Your task to perform on an android device: check out phone information Image 0: 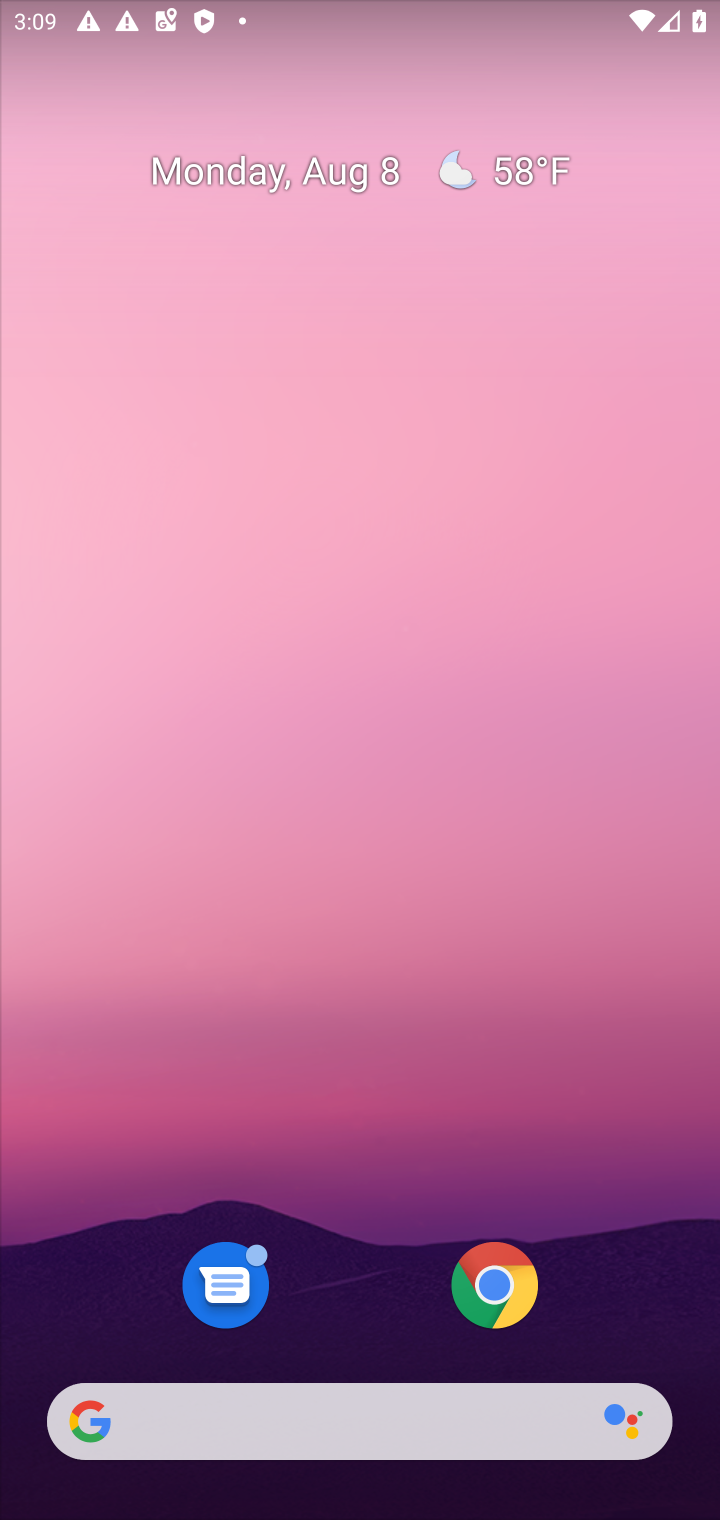
Step 0: drag from (470, 683) to (486, 188)
Your task to perform on an android device: check out phone information Image 1: 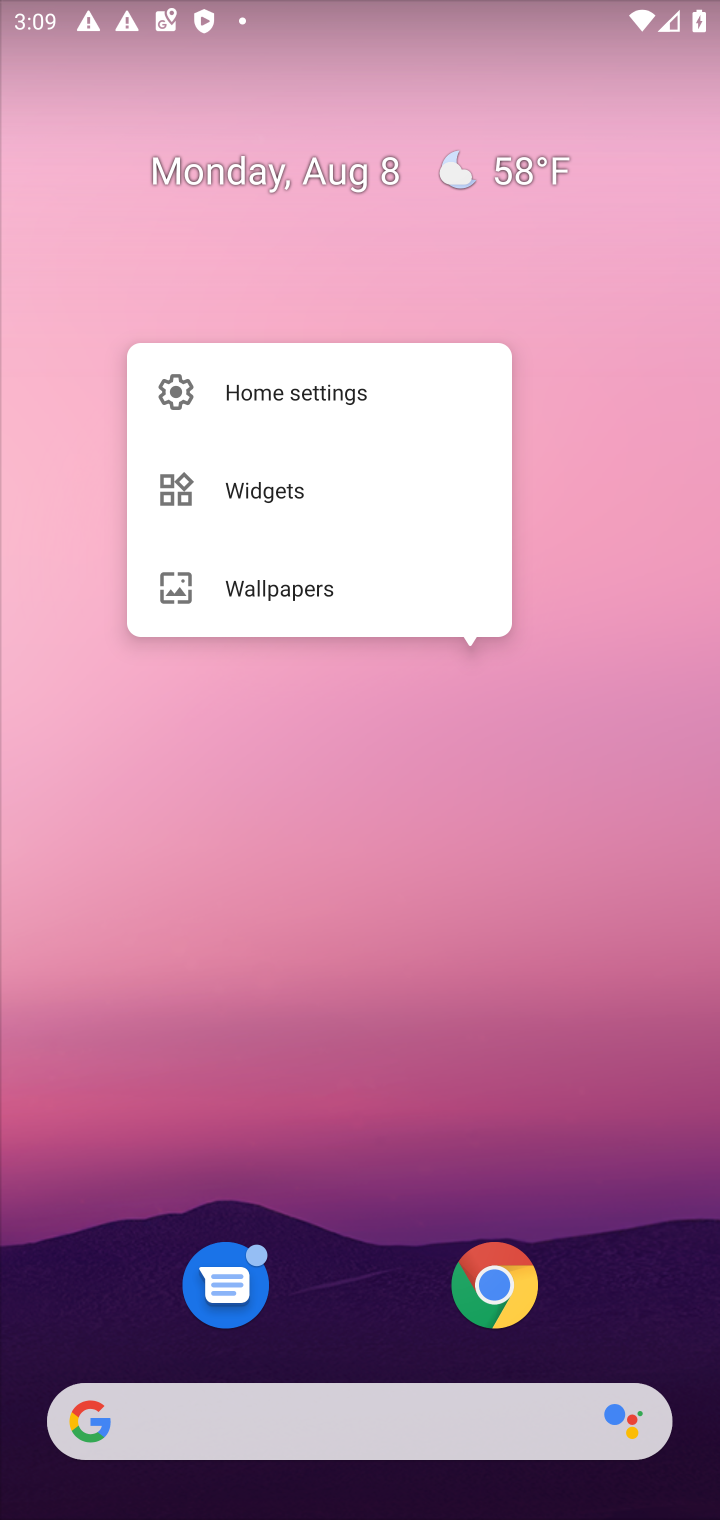
Step 1: click (317, 1200)
Your task to perform on an android device: check out phone information Image 2: 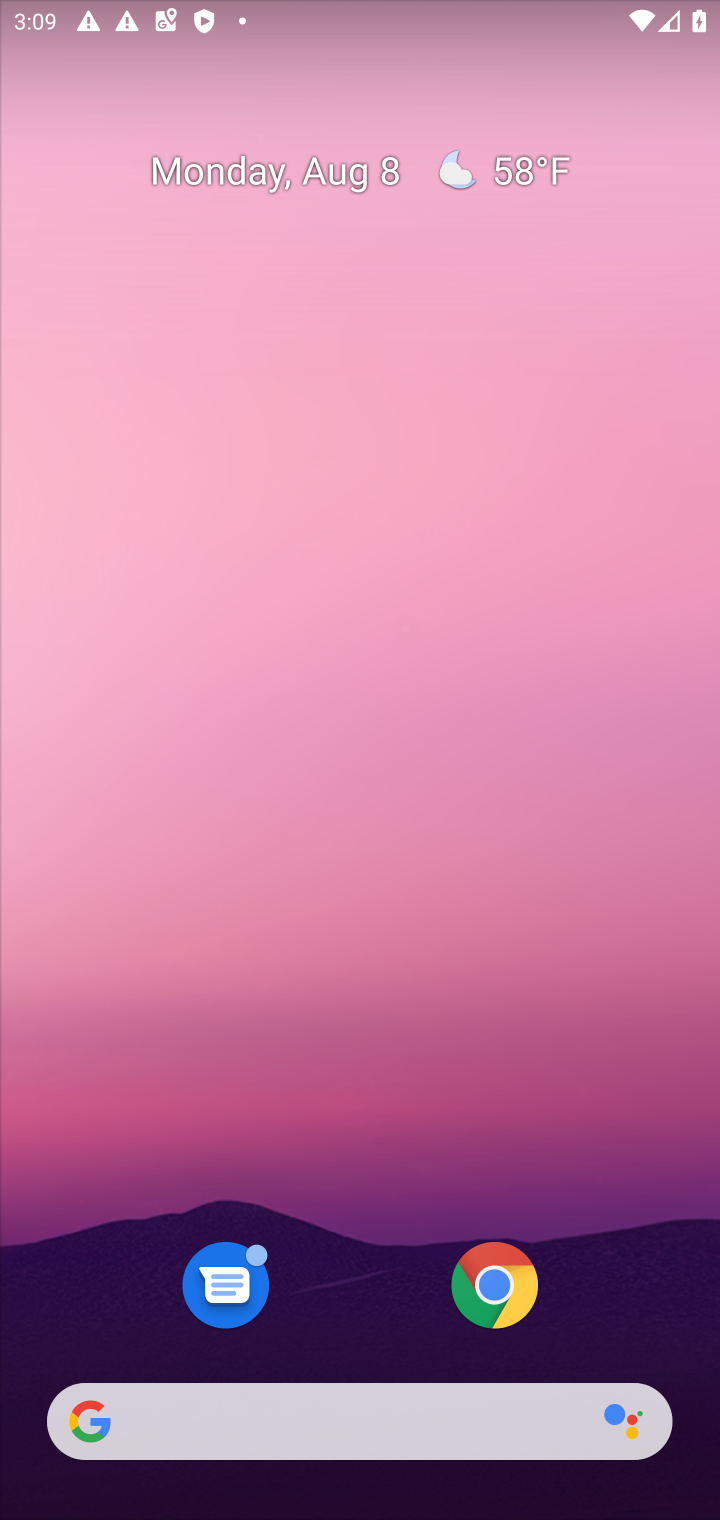
Step 2: drag from (454, 624) to (541, 52)
Your task to perform on an android device: check out phone information Image 3: 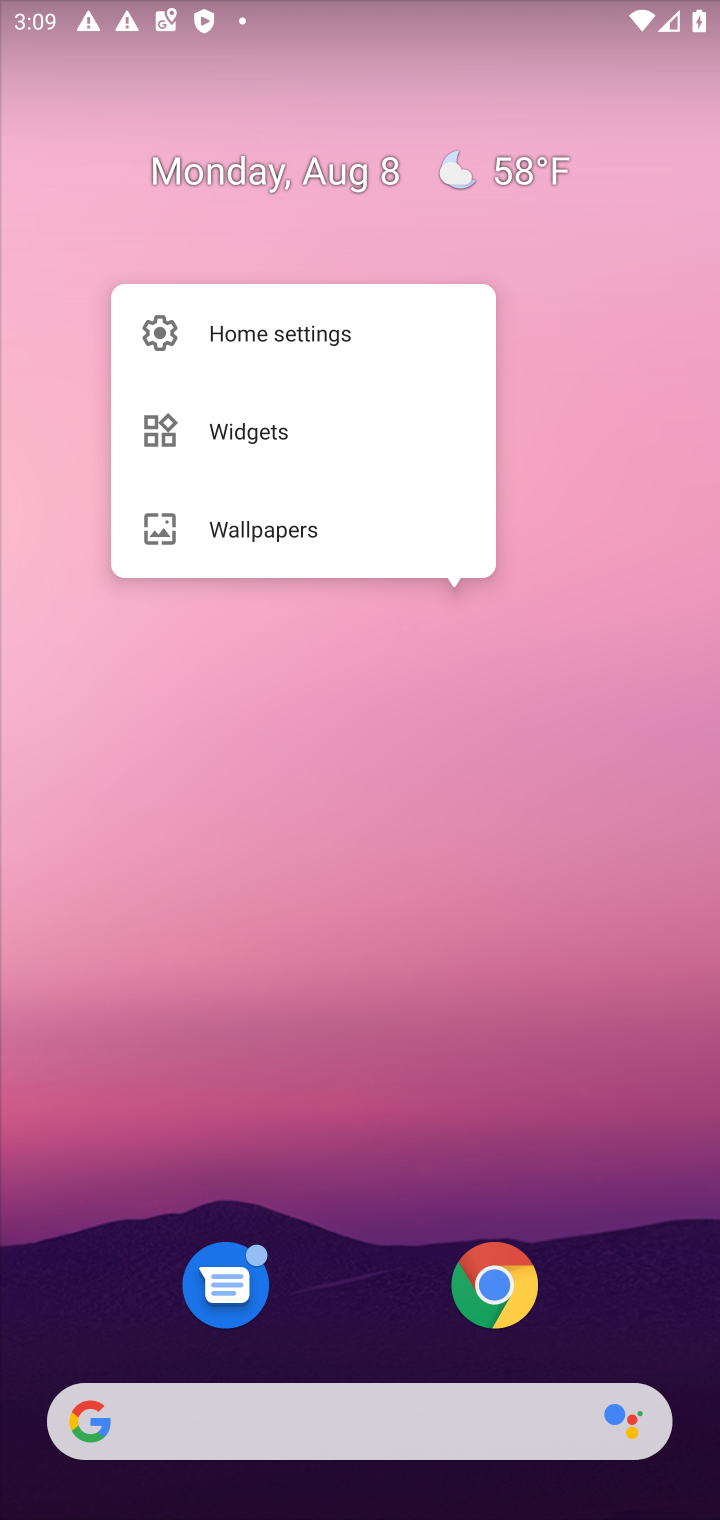
Step 3: click (427, 955)
Your task to perform on an android device: check out phone information Image 4: 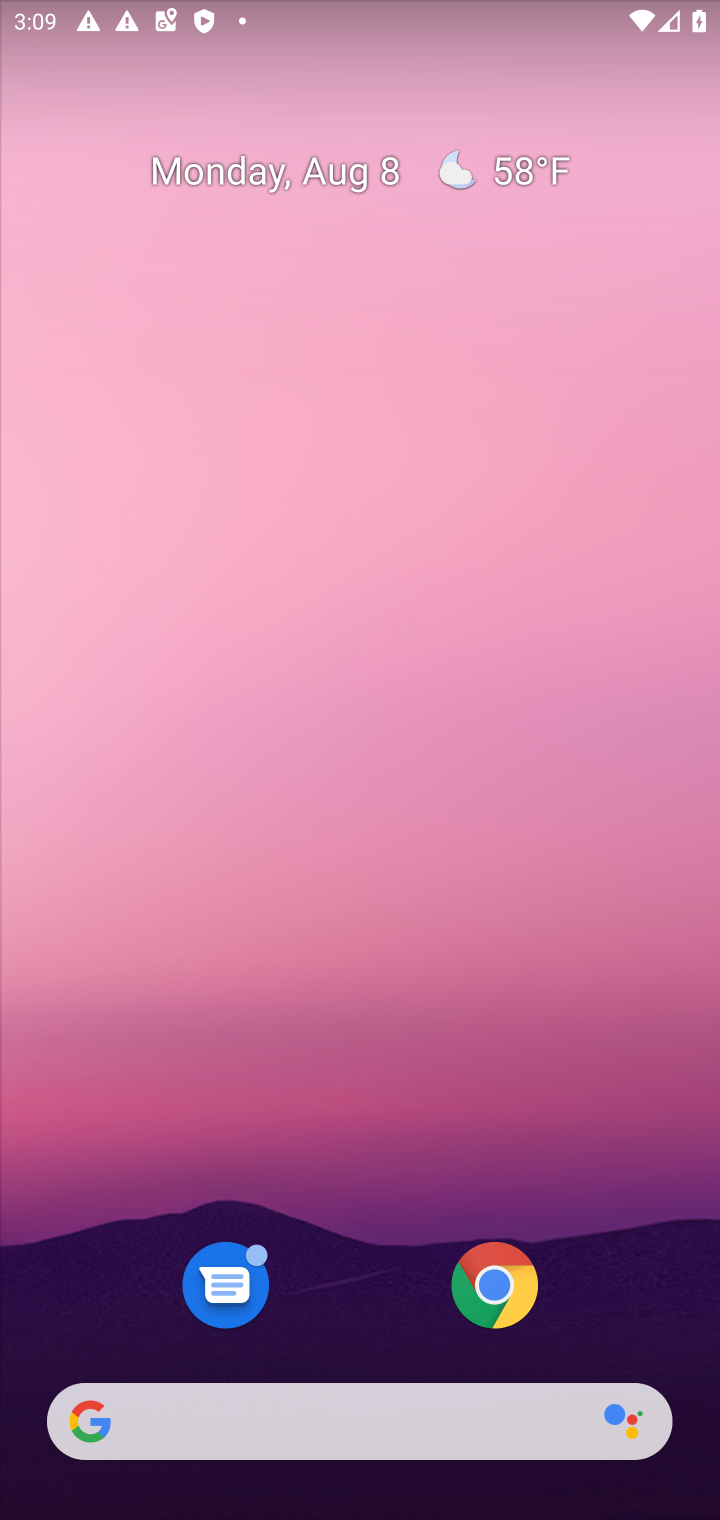
Step 4: drag from (351, 1256) to (560, 59)
Your task to perform on an android device: check out phone information Image 5: 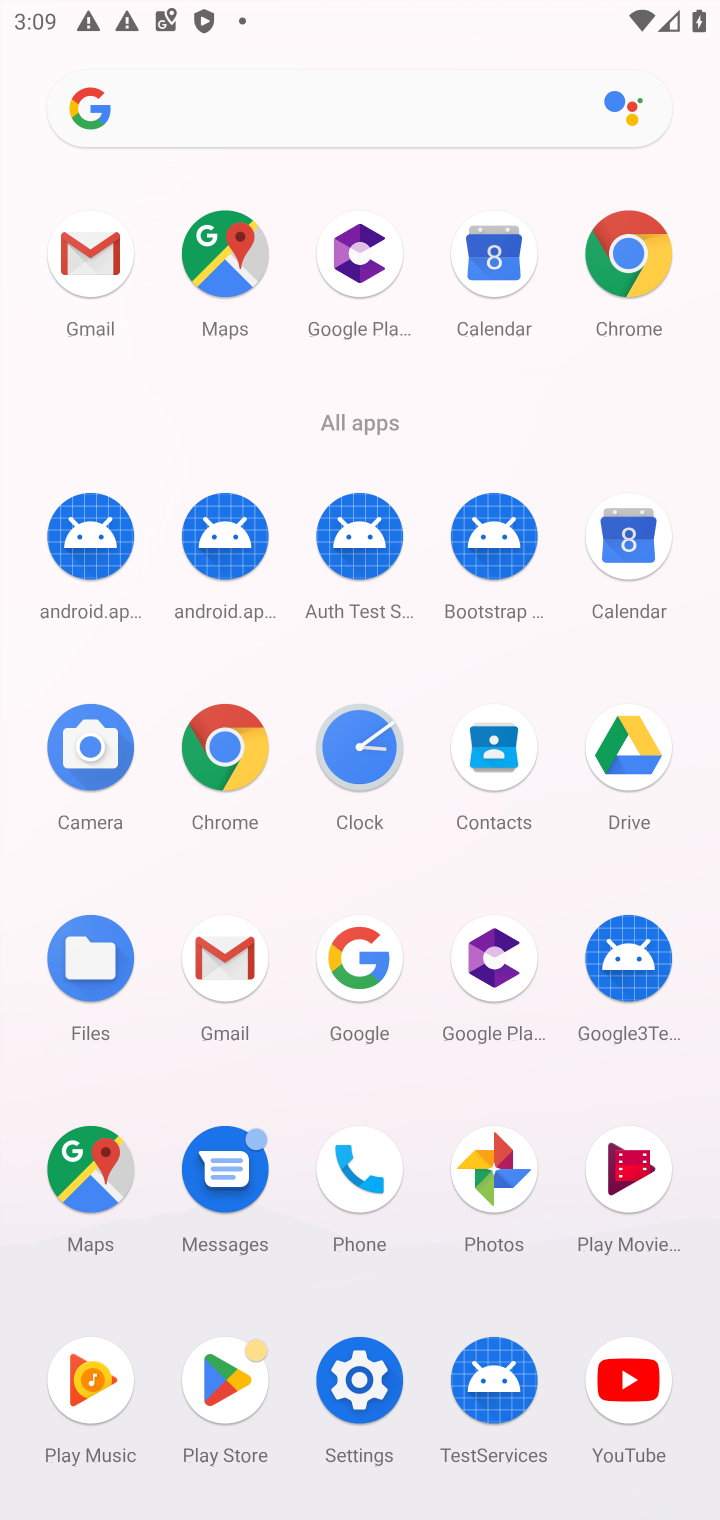
Step 5: click (365, 1397)
Your task to perform on an android device: check out phone information Image 6: 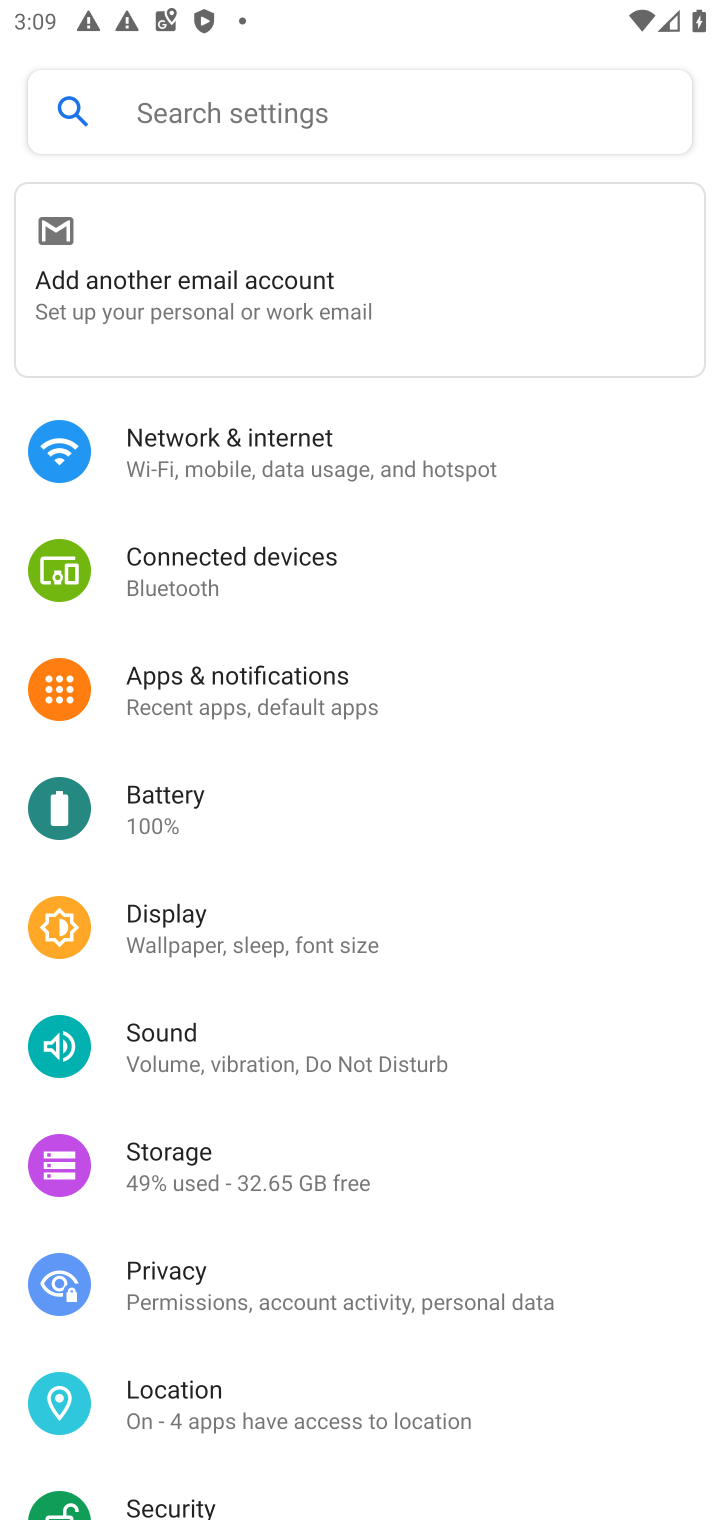
Step 6: drag from (287, 1351) to (561, 47)
Your task to perform on an android device: check out phone information Image 7: 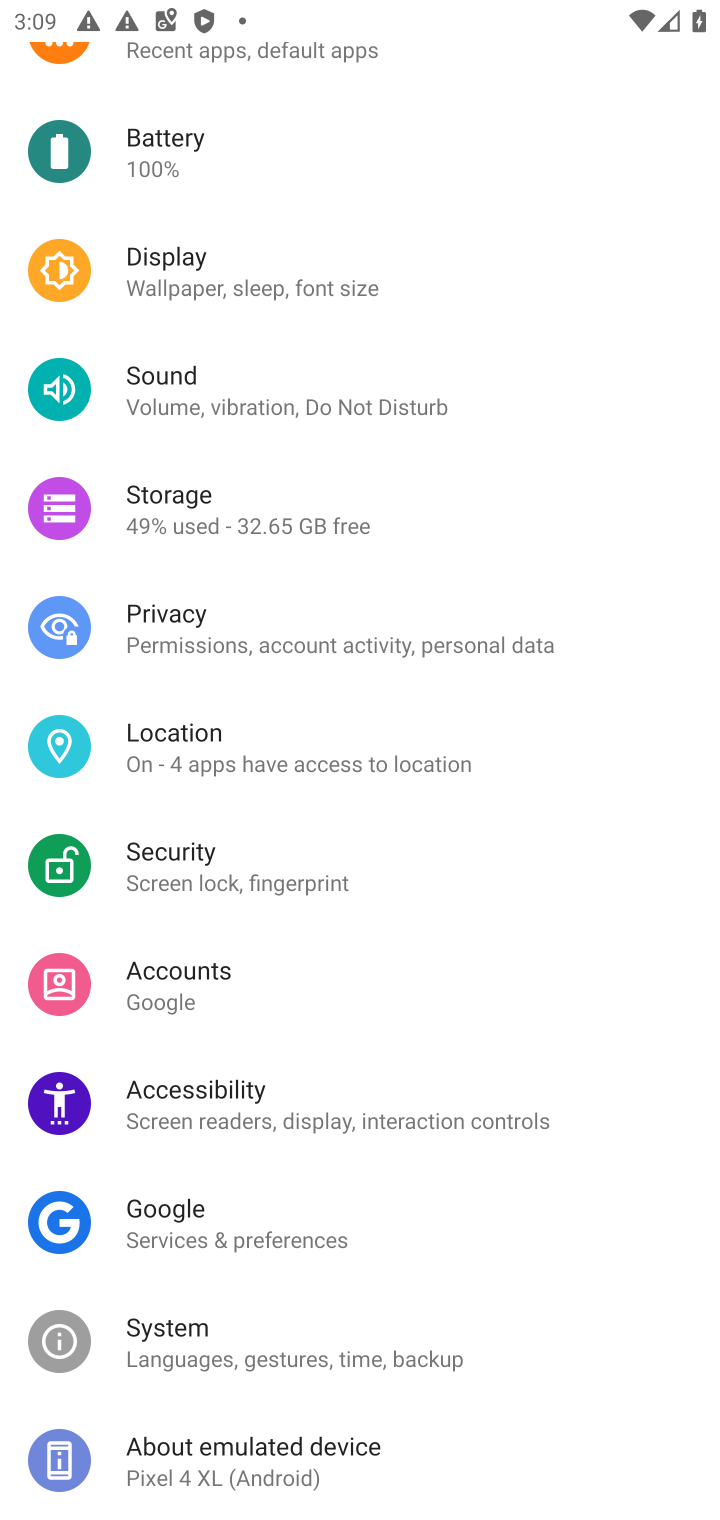
Step 7: click (313, 1455)
Your task to perform on an android device: check out phone information Image 8: 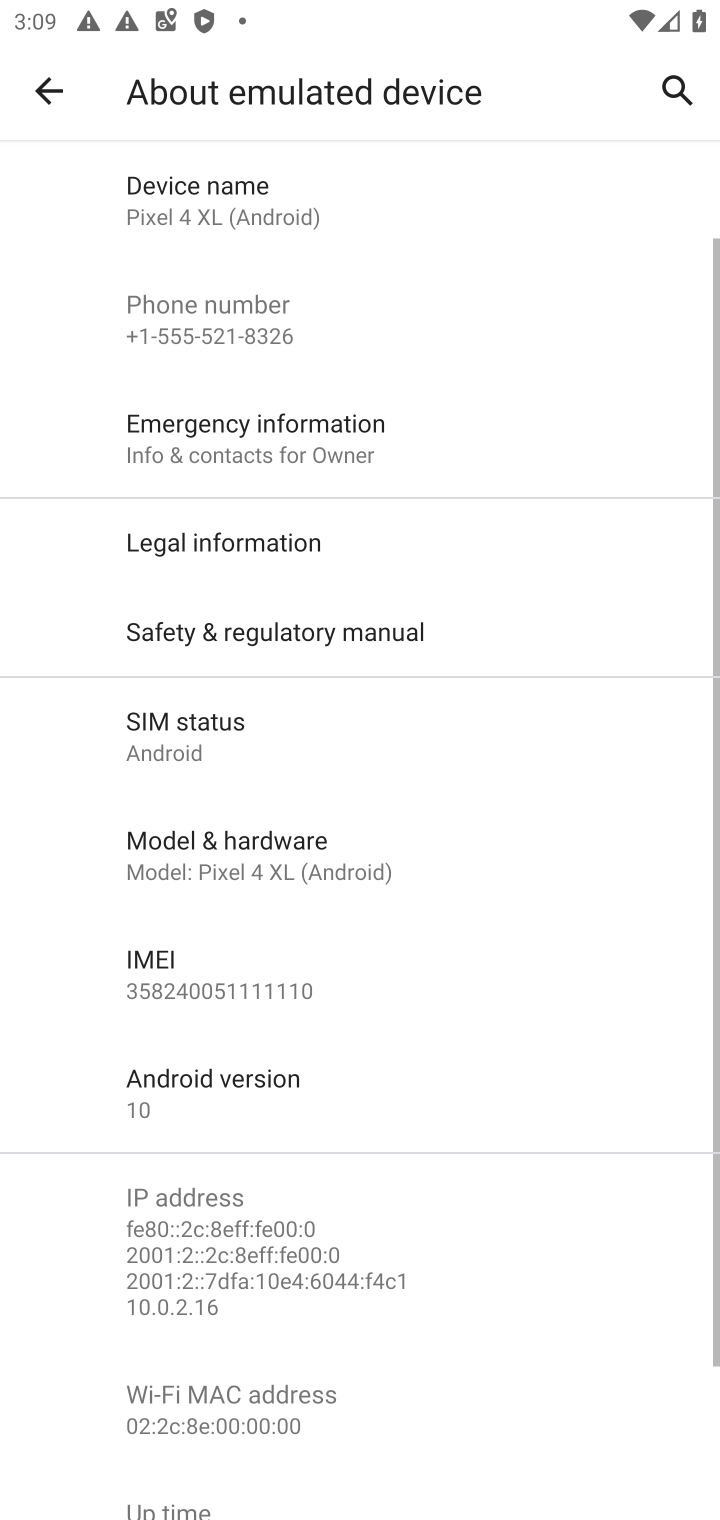
Step 8: task complete